Your task to perform on an android device: turn on airplane mode Image 0: 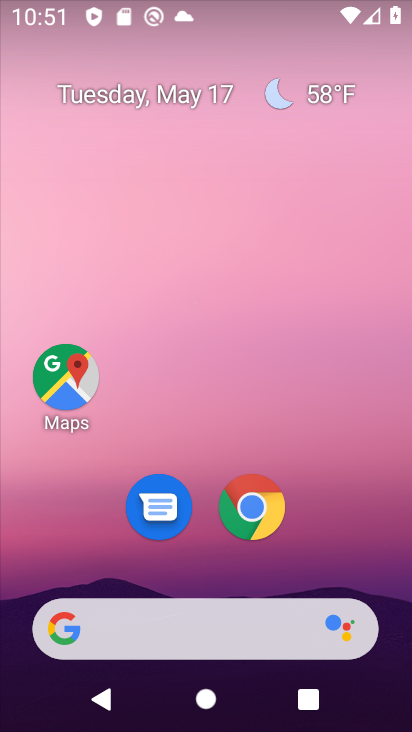
Step 0: drag from (323, 513) to (228, 119)
Your task to perform on an android device: turn on airplane mode Image 1: 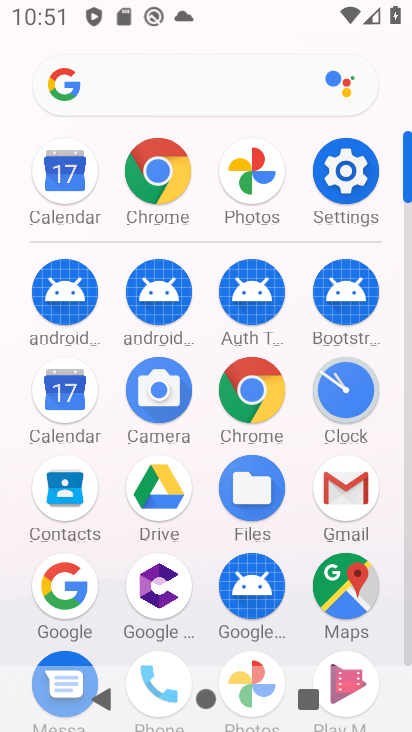
Step 1: click (333, 159)
Your task to perform on an android device: turn on airplane mode Image 2: 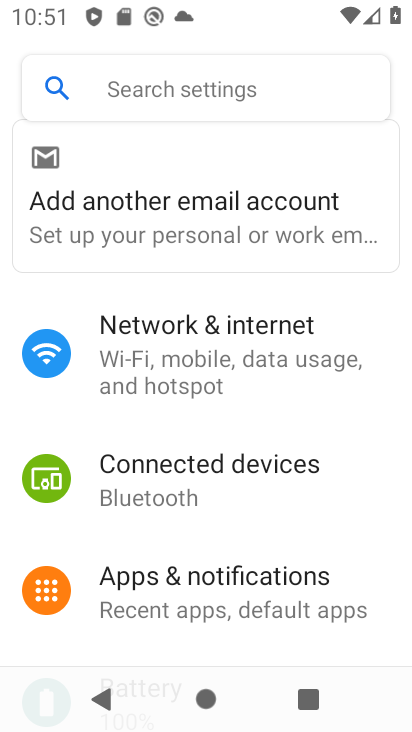
Step 2: click (157, 332)
Your task to perform on an android device: turn on airplane mode Image 3: 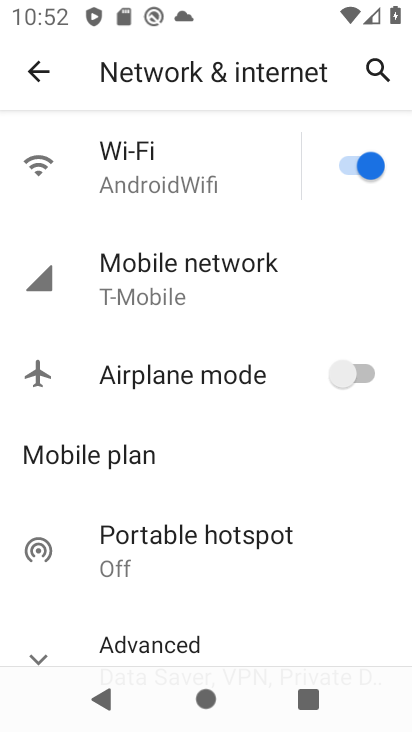
Step 3: click (339, 373)
Your task to perform on an android device: turn on airplane mode Image 4: 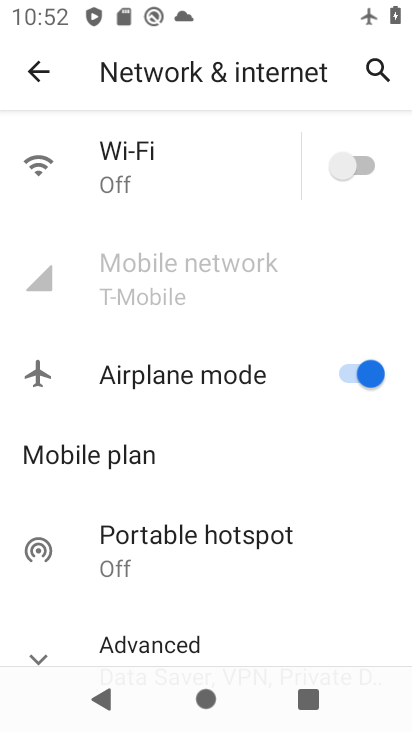
Step 4: task complete